Your task to perform on an android device: allow notifications from all sites in the chrome app Image 0: 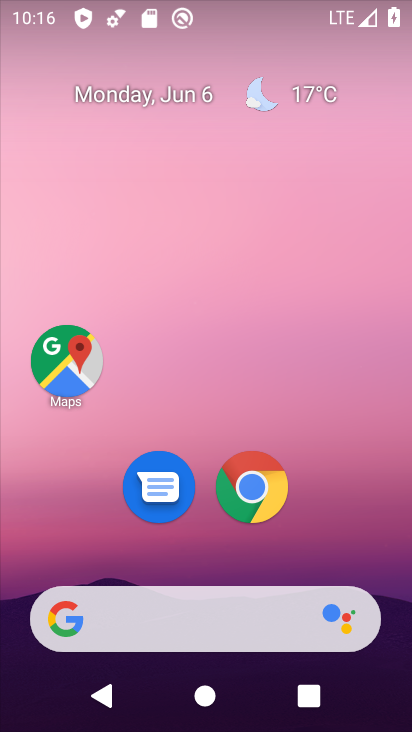
Step 0: press home button
Your task to perform on an android device: allow notifications from all sites in the chrome app Image 1: 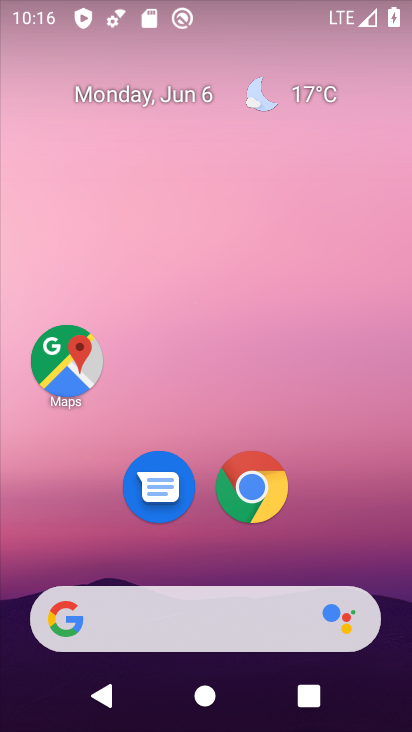
Step 1: drag from (375, 559) to (278, 73)
Your task to perform on an android device: allow notifications from all sites in the chrome app Image 2: 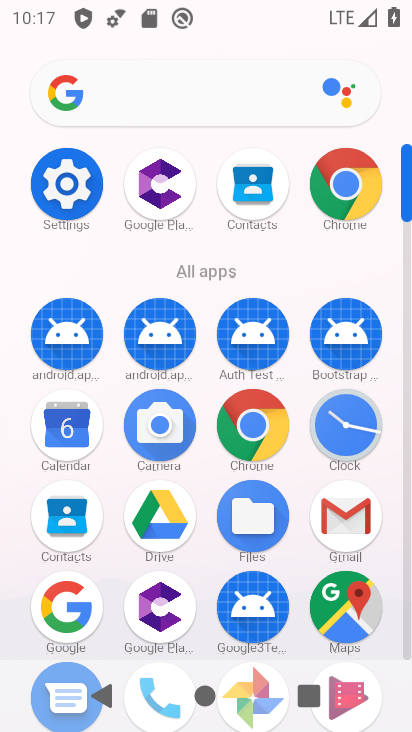
Step 2: click (336, 182)
Your task to perform on an android device: allow notifications from all sites in the chrome app Image 3: 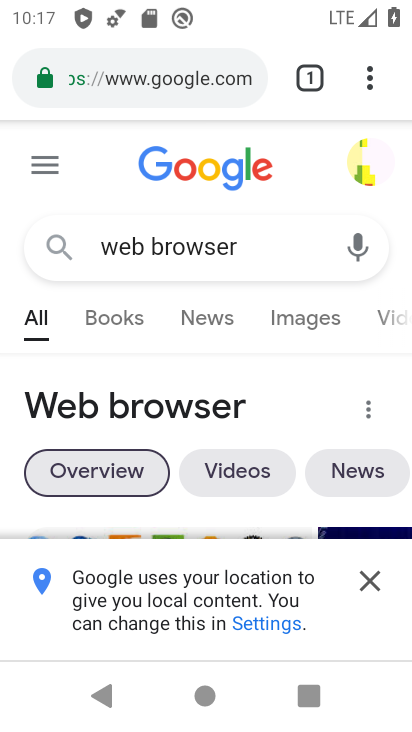
Step 3: drag from (369, 74) to (124, 551)
Your task to perform on an android device: allow notifications from all sites in the chrome app Image 4: 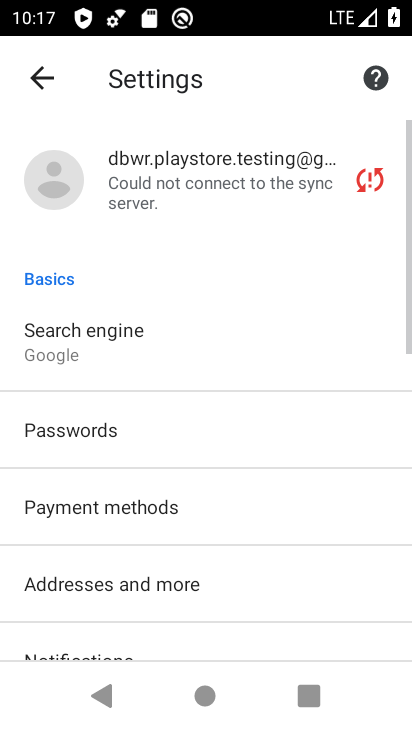
Step 4: drag from (257, 599) to (224, 308)
Your task to perform on an android device: allow notifications from all sites in the chrome app Image 5: 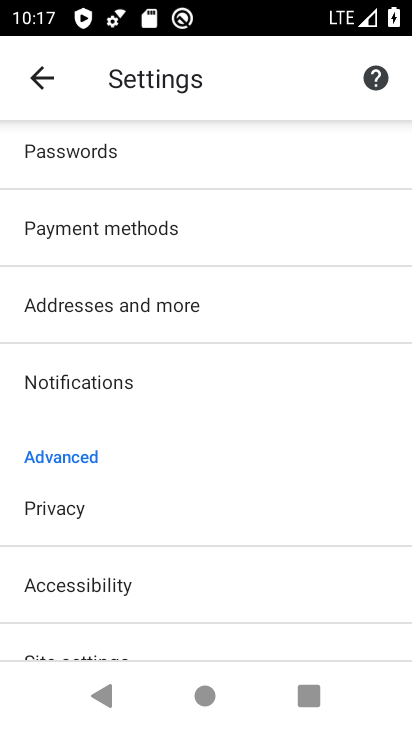
Step 5: drag from (223, 291) to (196, 69)
Your task to perform on an android device: allow notifications from all sites in the chrome app Image 6: 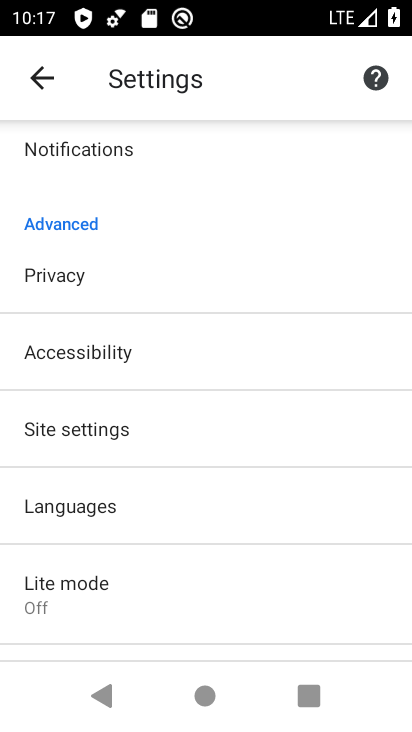
Step 6: click (128, 429)
Your task to perform on an android device: allow notifications from all sites in the chrome app Image 7: 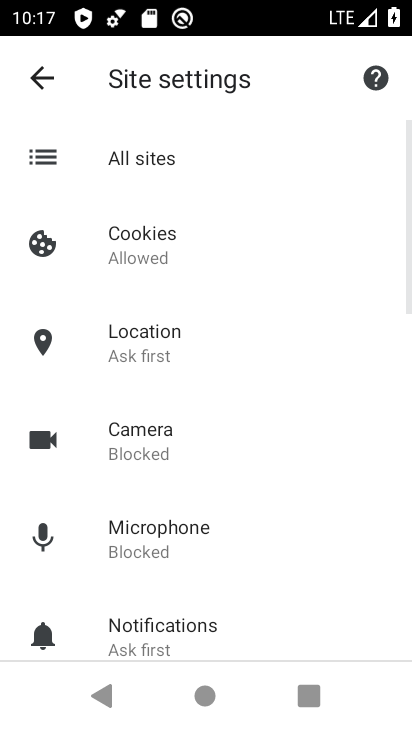
Step 7: click (164, 172)
Your task to perform on an android device: allow notifications from all sites in the chrome app Image 8: 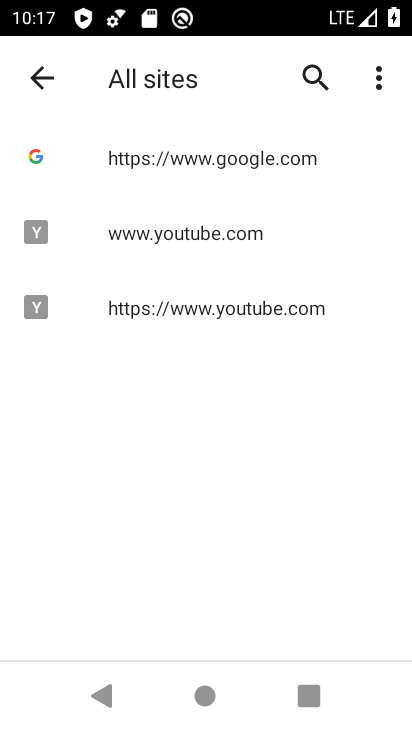
Step 8: click (152, 146)
Your task to perform on an android device: allow notifications from all sites in the chrome app Image 9: 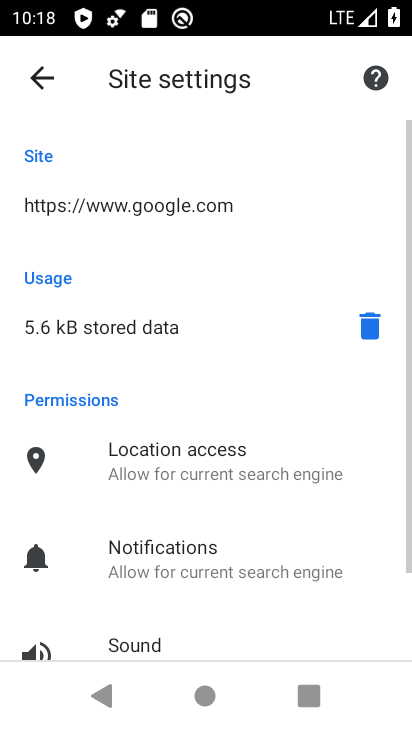
Step 9: click (184, 579)
Your task to perform on an android device: allow notifications from all sites in the chrome app Image 10: 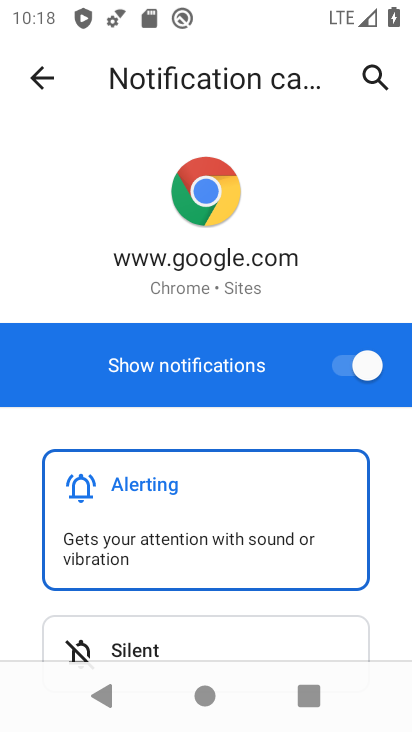
Step 10: drag from (236, 549) to (245, 230)
Your task to perform on an android device: allow notifications from all sites in the chrome app Image 11: 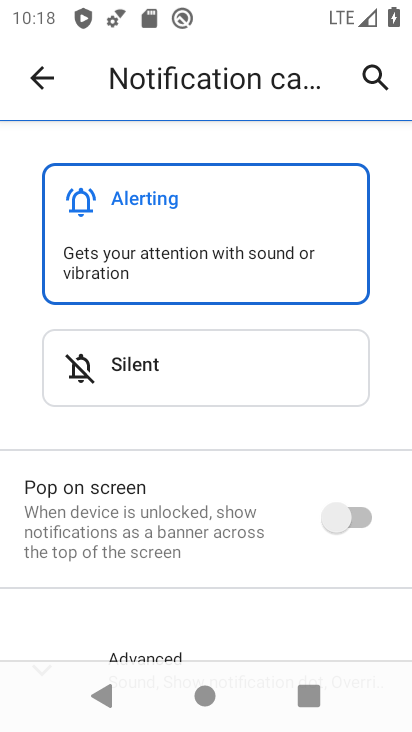
Step 11: click (230, 509)
Your task to perform on an android device: allow notifications from all sites in the chrome app Image 12: 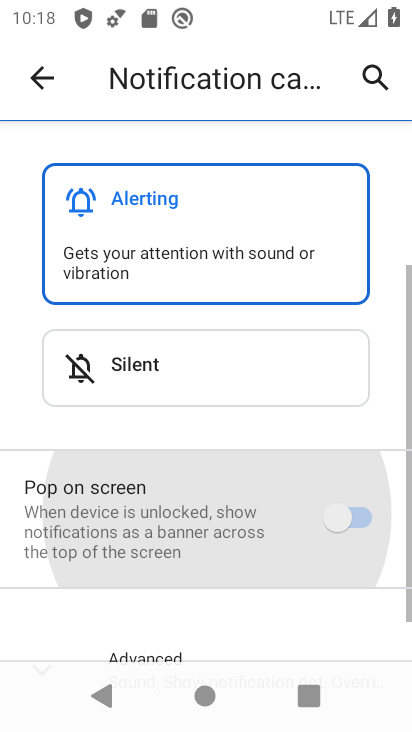
Step 12: drag from (230, 509) to (199, 250)
Your task to perform on an android device: allow notifications from all sites in the chrome app Image 13: 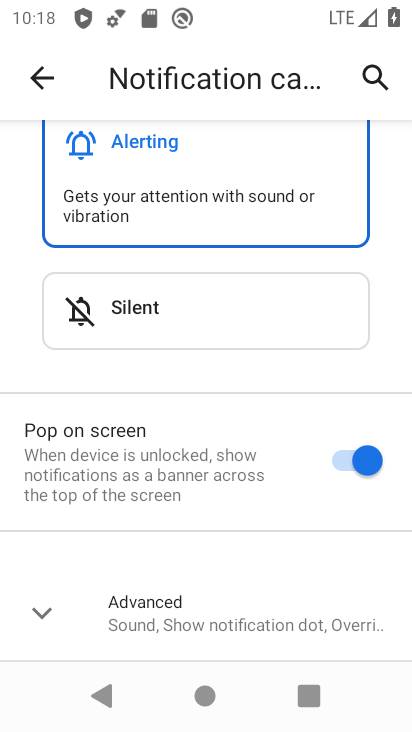
Step 13: click (152, 598)
Your task to perform on an android device: allow notifications from all sites in the chrome app Image 14: 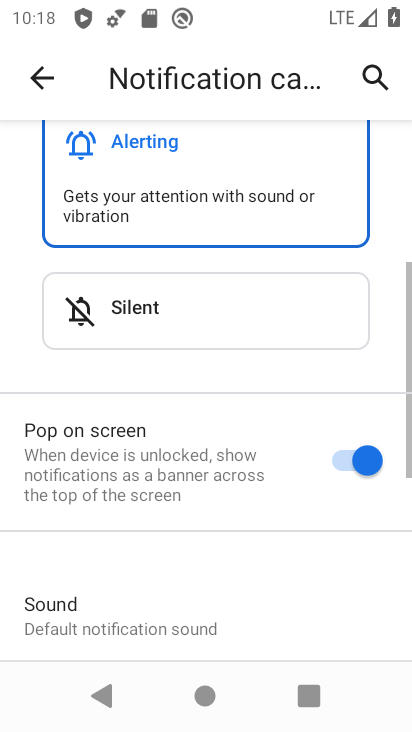
Step 14: drag from (163, 600) to (215, 222)
Your task to perform on an android device: allow notifications from all sites in the chrome app Image 15: 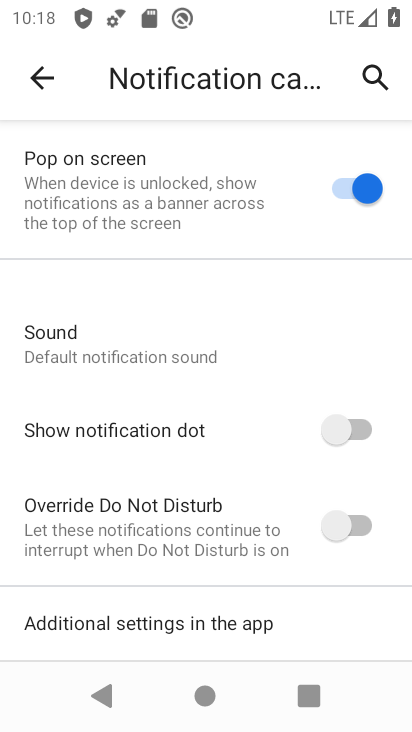
Step 15: click (179, 506)
Your task to perform on an android device: allow notifications from all sites in the chrome app Image 16: 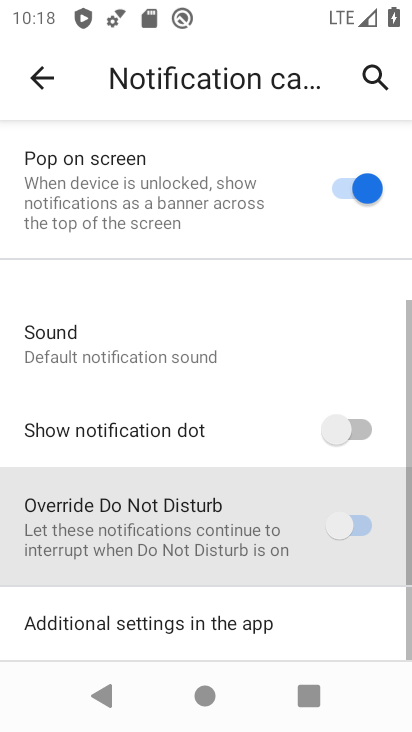
Step 16: click (189, 447)
Your task to perform on an android device: allow notifications from all sites in the chrome app Image 17: 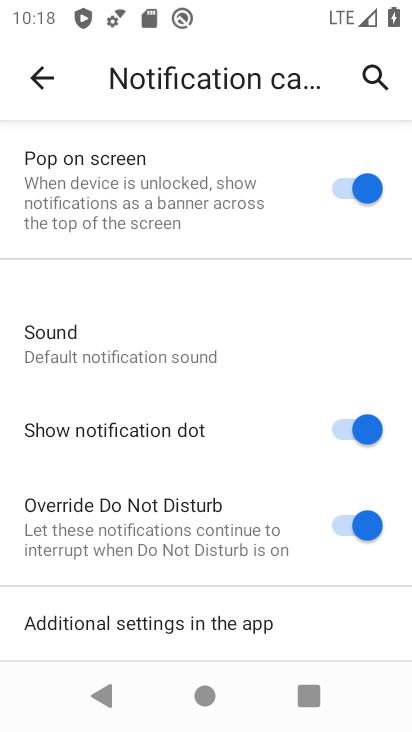
Step 17: task complete